Your task to perform on an android device: see creations saved in the google photos Image 0: 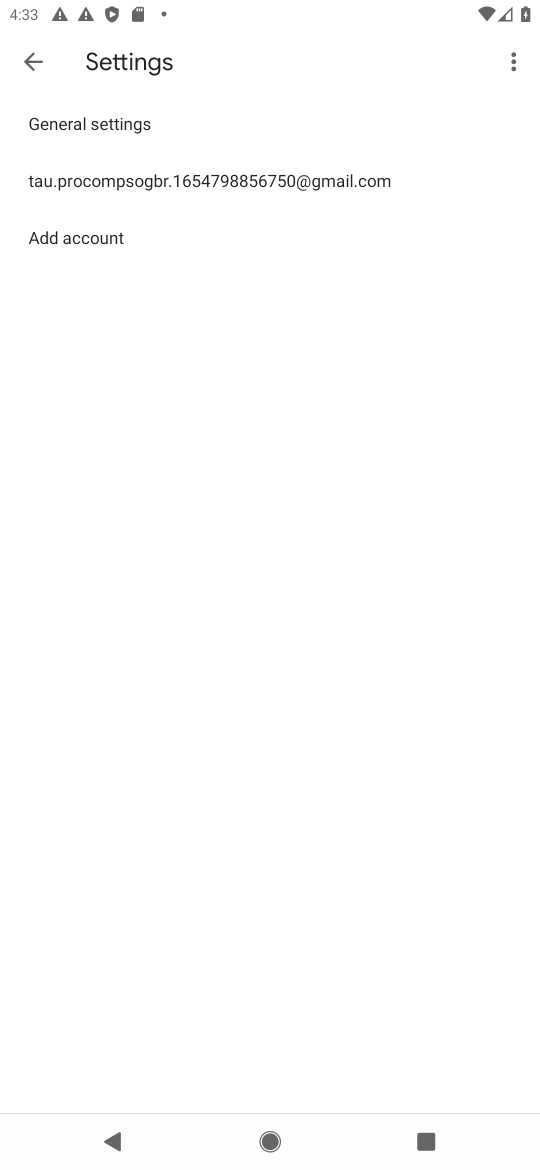
Step 0: press home button
Your task to perform on an android device: see creations saved in the google photos Image 1: 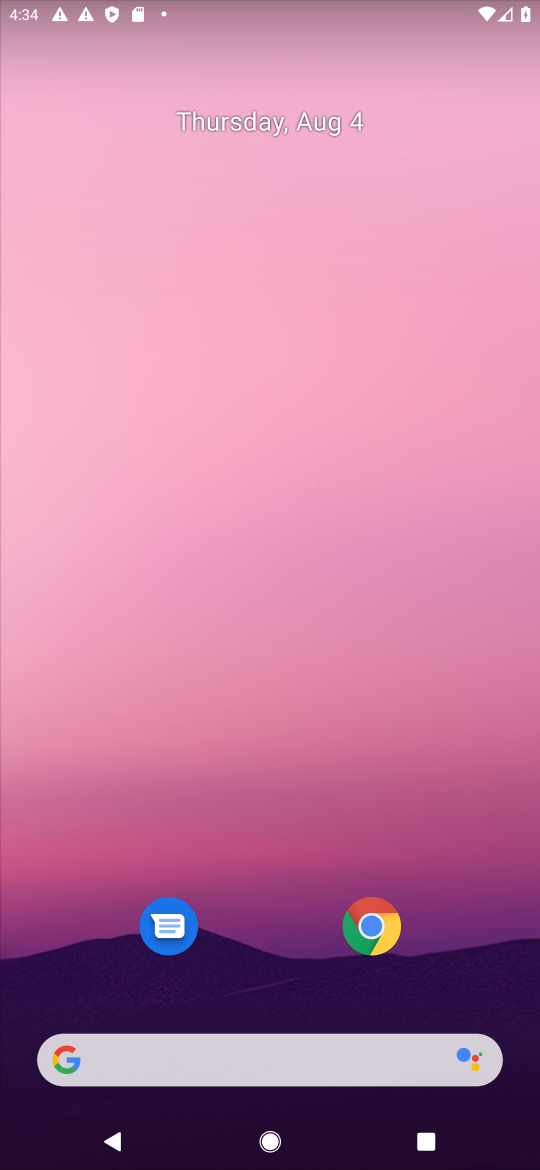
Step 1: drag from (251, 845) to (249, 334)
Your task to perform on an android device: see creations saved in the google photos Image 2: 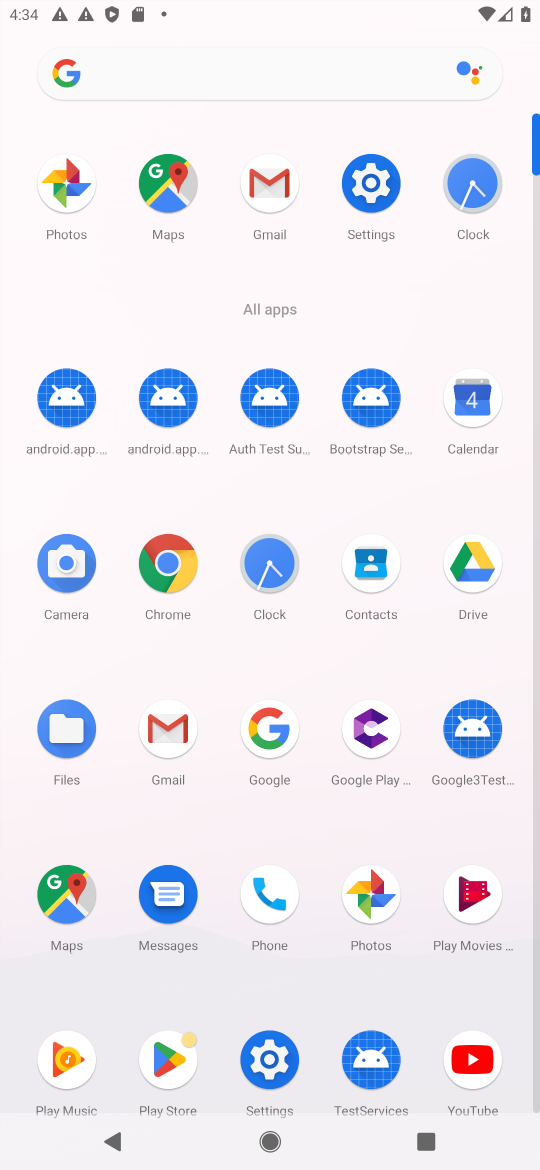
Step 2: click (90, 196)
Your task to perform on an android device: see creations saved in the google photos Image 3: 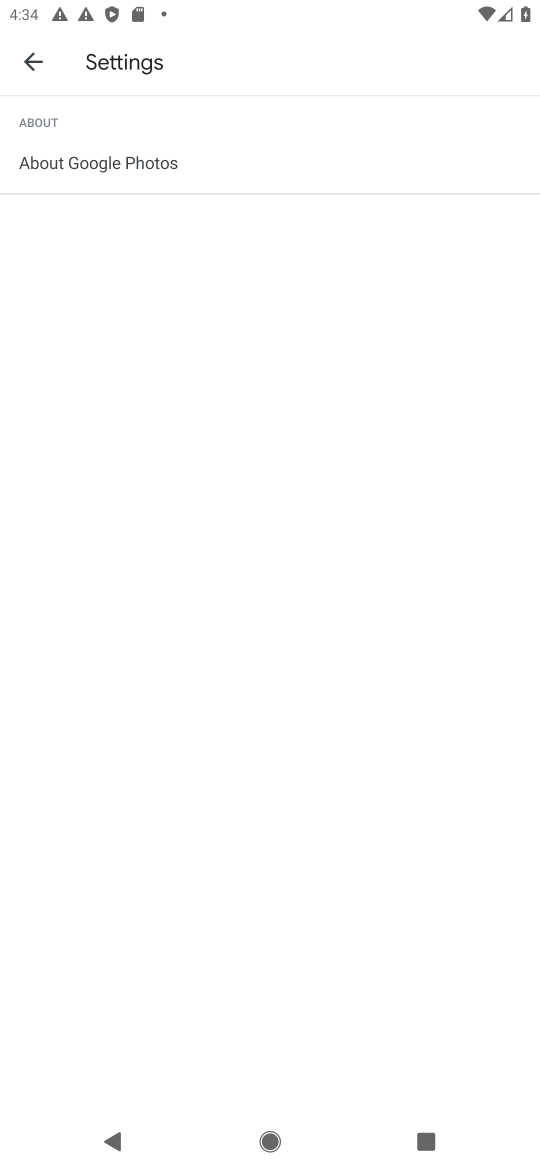
Step 3: click (39, 59)
Your task to perform on an android device: see creations saved in the google photos Image 4: 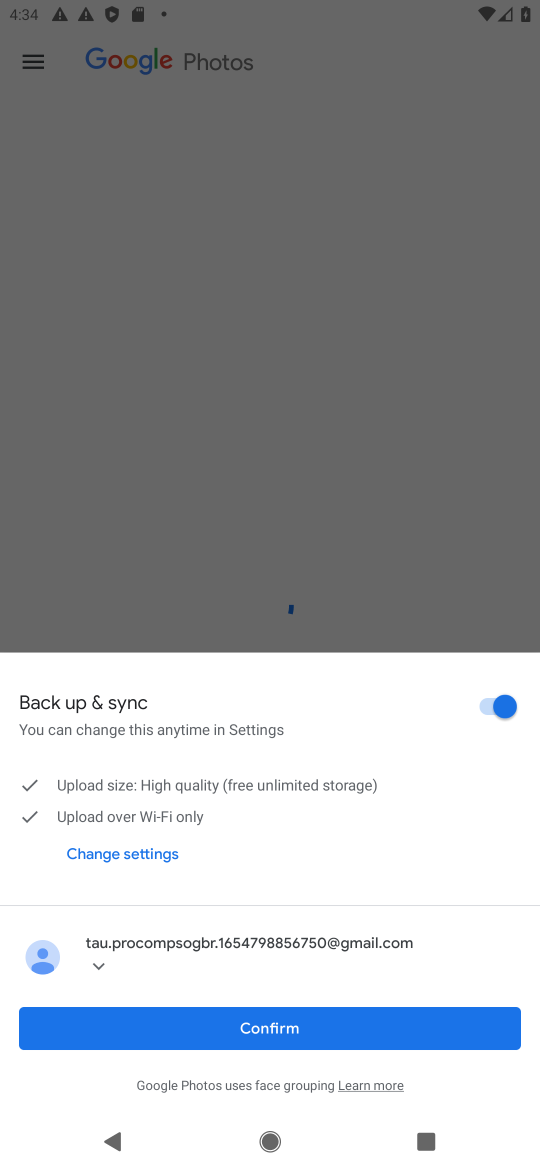
Step 4: click (368, 1042)
Your task to perform on an android device: see creations saved in the google photos Image 5: 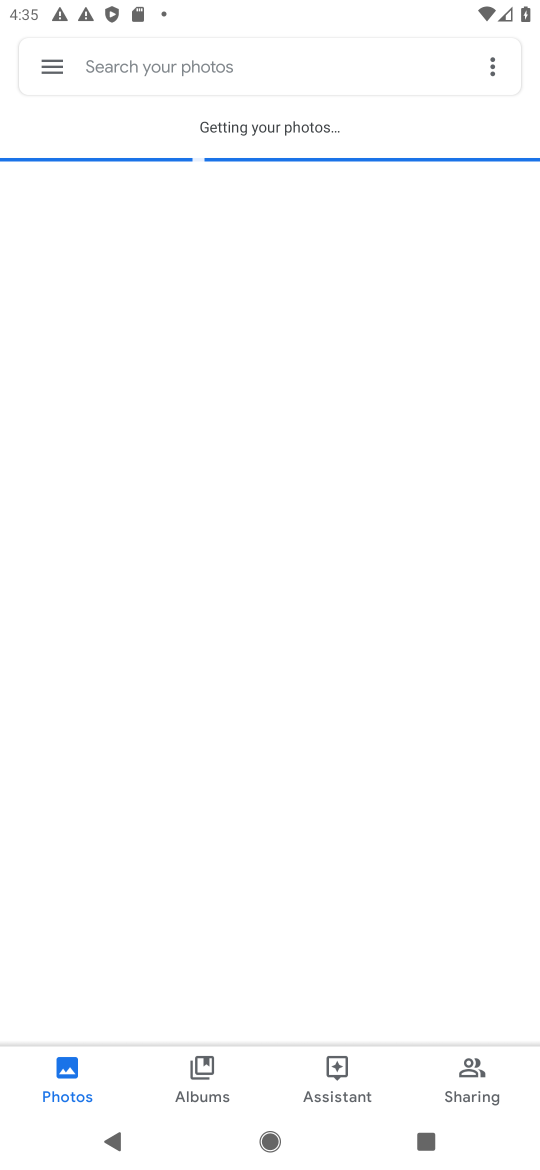
Step 5: click (309, 58)
Your task to perform on an android device: see creations saved in the google photos Image 6: 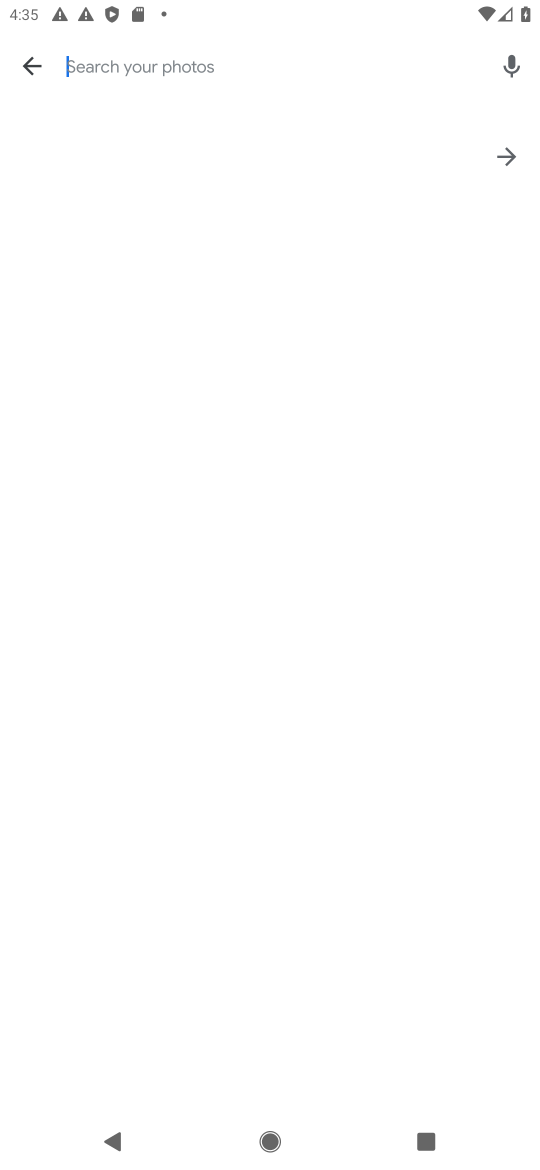
Step 6: click (223, 60)
Your task to perform on an android device: see creations saved in the google photos Image 7: 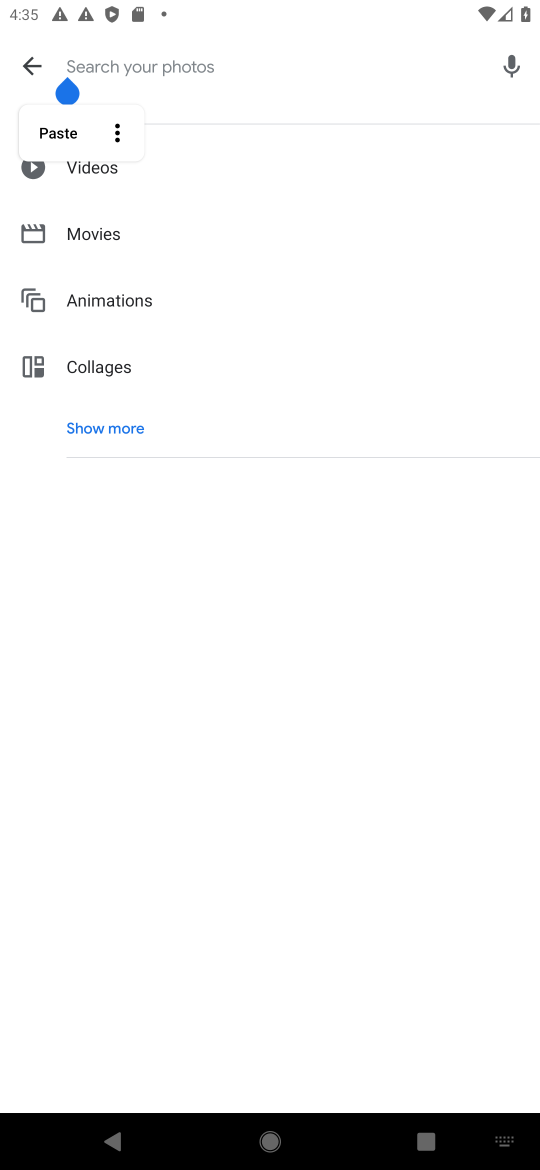
Step 7: click (97, 434)
Your task to perform on an android device: see creations saved in the google photos Image 8: 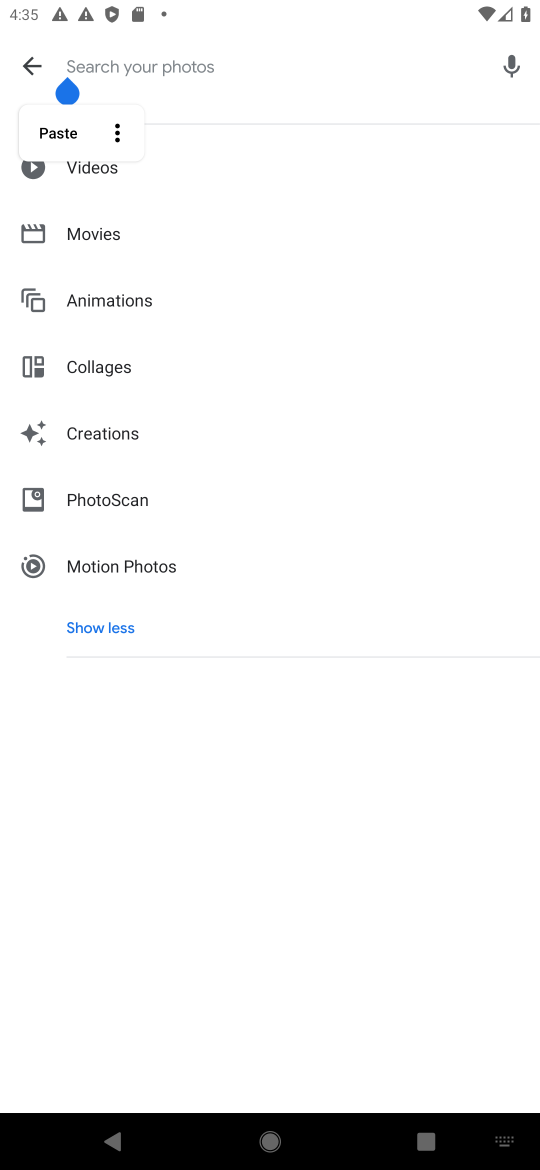
Step 8: click (100, 438)
Your task to perform on an android device: see creations saved in the google photos Image 9: 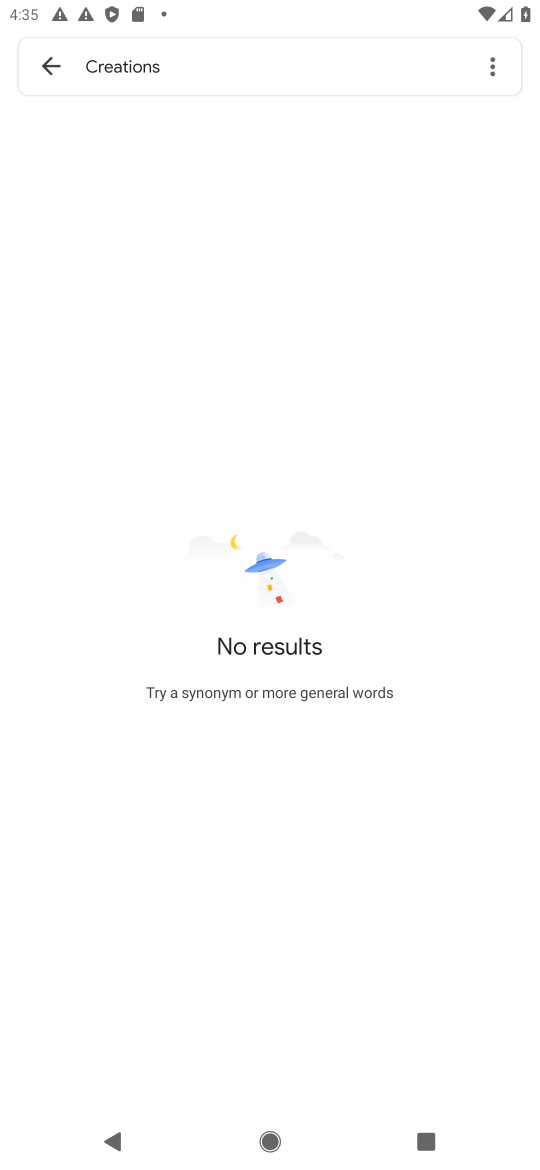
Step 9: task complete